Your task to perform on an android device: clear all cookies in the chrome app Image 0: 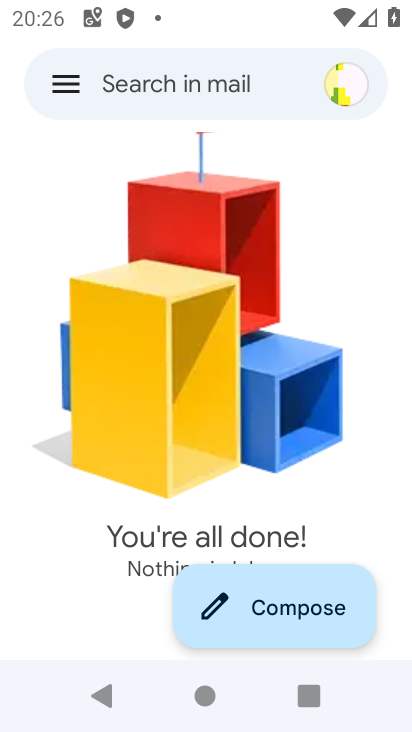
Step 0: press home button
Your task to perform on an android device: clear all cookies in the chrome app Image 1: 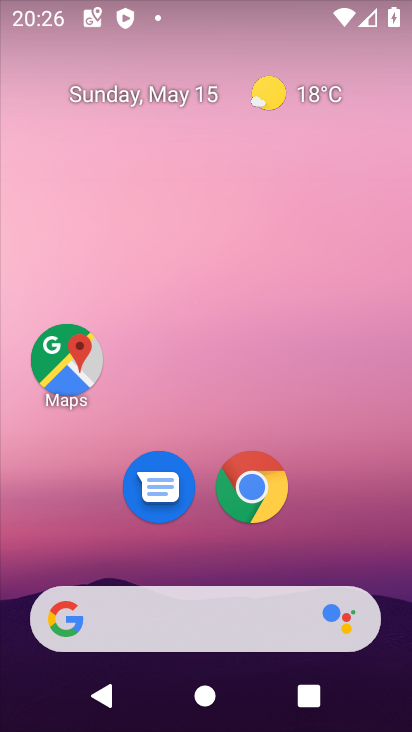
Step 1: click (262, 481)
Your task to perform on an android device: clear all cookies in the chrome app Image 2: 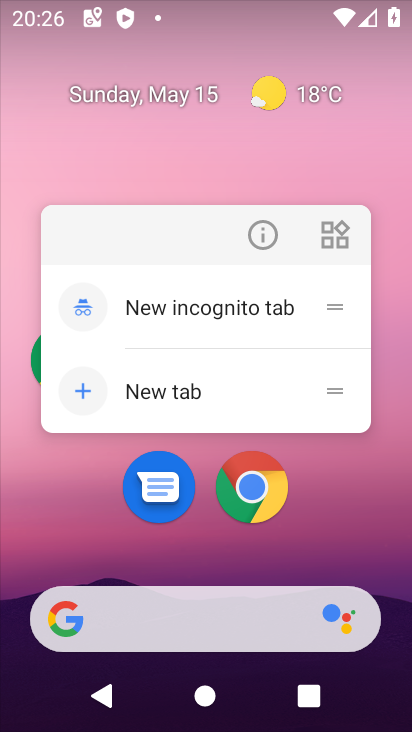
Step 2: click (258, 482)
Your task to perform on an android device: clear all cookies in the chrome app Image 3: 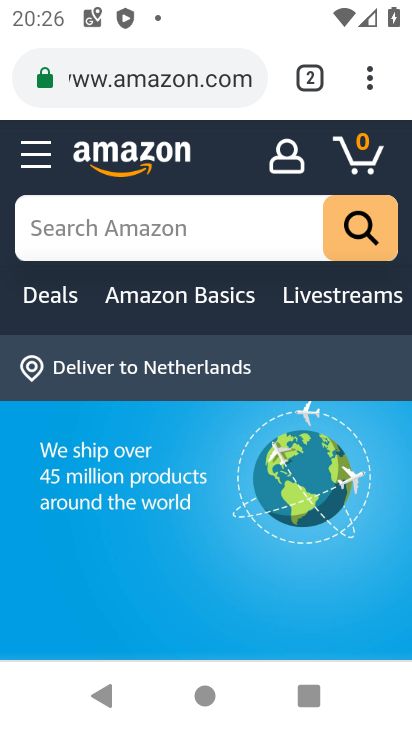
Step 3: click (365, 74)
Your task to perform on an android device: clear all cookies in the chrome app Image 4: 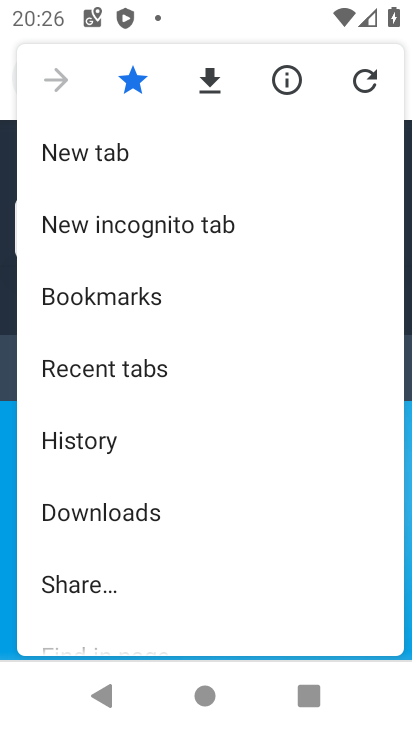
Step 4: drag from (288, 382) to (293, 330)
Your task to perform on an android device: clear all cookies in the chrome app Image 5: 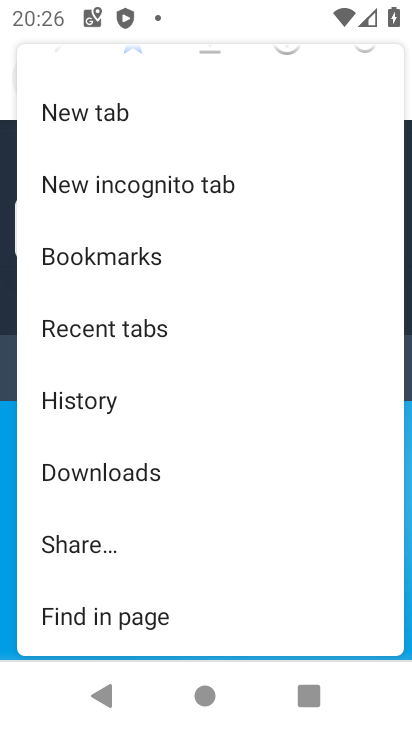
Step 5: drag from (278, 564) to (277, 276)
Your task to perform on an android device: clear all cookies in the chrome app Image 6: 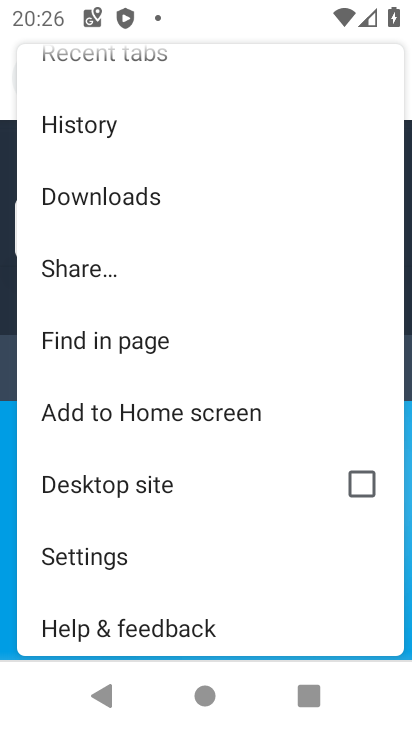
Step 6: drag from (264, 197) to (261, 423)
Your task to perform on an android device: clear all cookies in the chrome app Image 7: 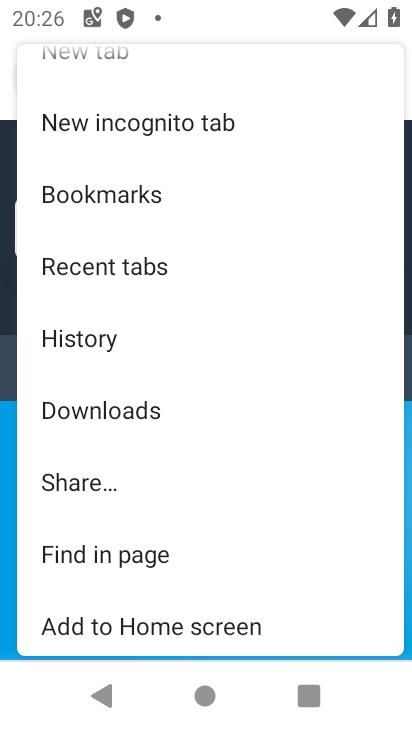
Step 7: click (61, 340)
Your task to perform on an android device: clear all cookies in the chrome app Image 8: 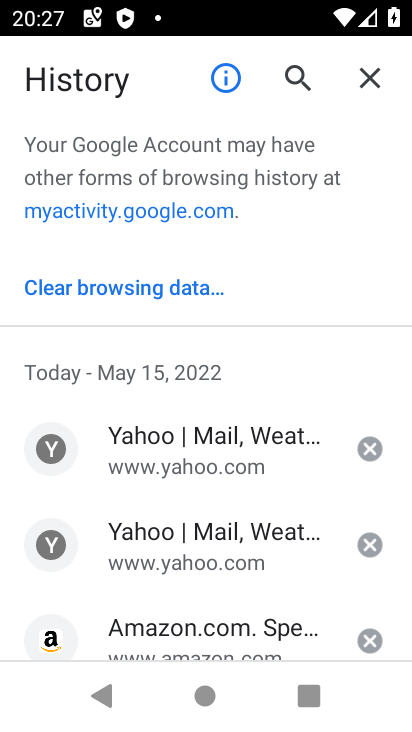
Step 8: click (136, 288)
Your task to perform on an android device: clear all cookies in the chrome app Image 9: 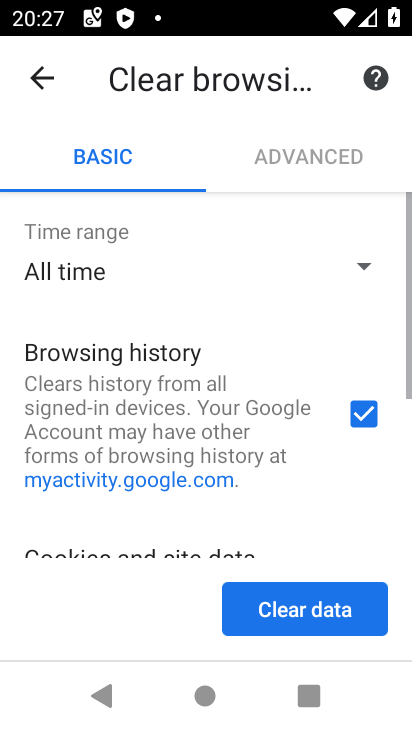
Step 9: drag from (270, 518) to (277, 299)
Your task to perform on an android device: clear all cookies in the chrome app Image 10: 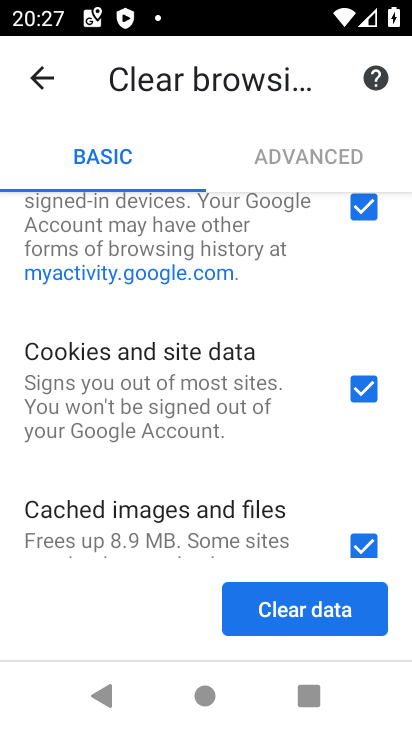
Step 10: click (335, 606)
Your task to perform on an android device: clear all cookies in the chrome app Image 11: 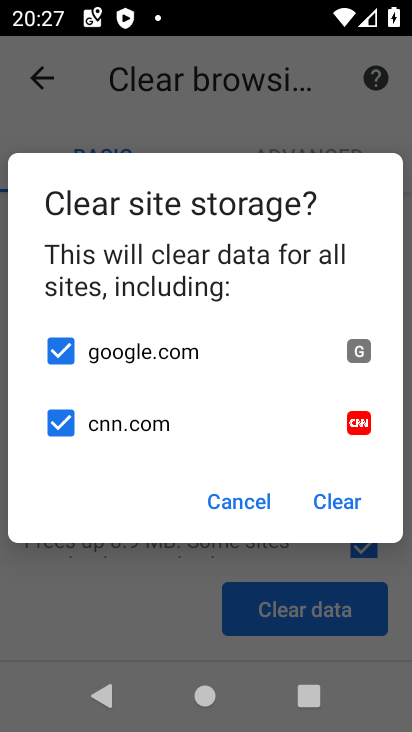
Step 11: click (343, 493)
Your task to perform on an android device: clear all cookies in the chrome app Image 12: 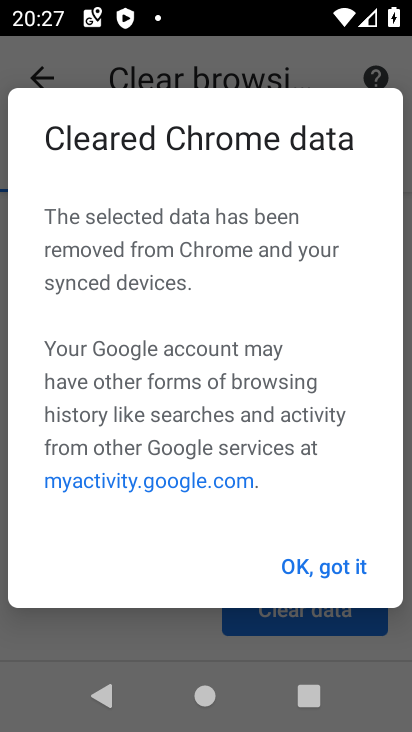
Step 12: click (304, 563)
Your task to perform on an android device: clear all cookies in the chrome app Image 13: 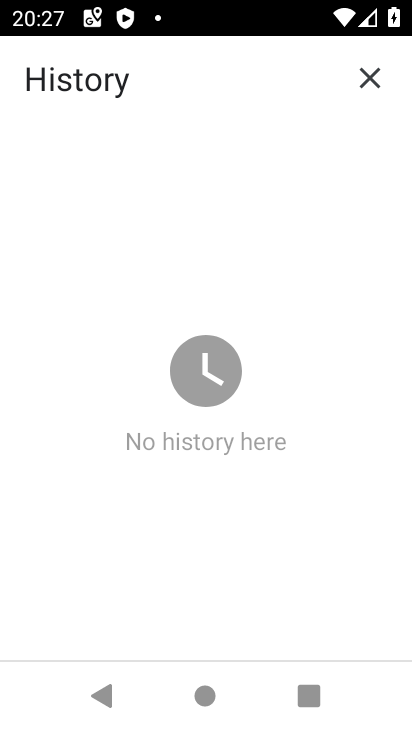
Step 13: task complete